Your task to perform on an android device: What's on my calendar today? Image 0: 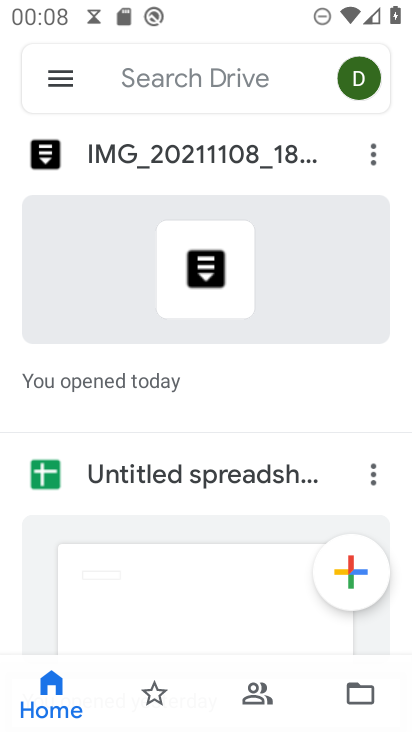
Step 0: press home button
Your task to perform on an android device: What's on my calendar today? Image 1: 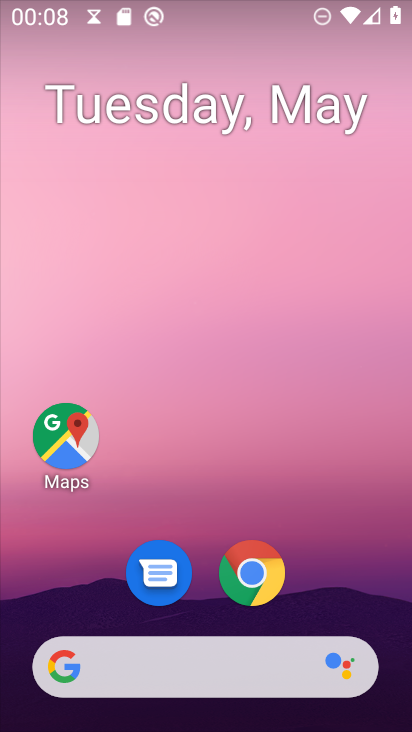
Step 1: drag from (328, 571) to (232, 46)
Your task to perform on an android device: What's on my calendar today? Image 2: 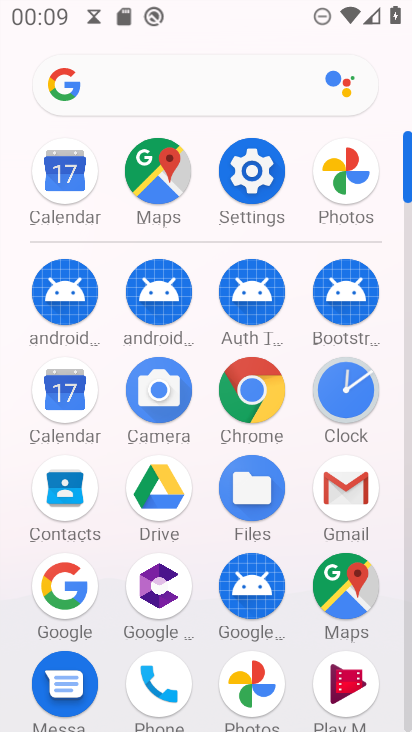
Step 2: click (73, 390)
Your task to perform on an android device: What's on my calendar today? Image 3: 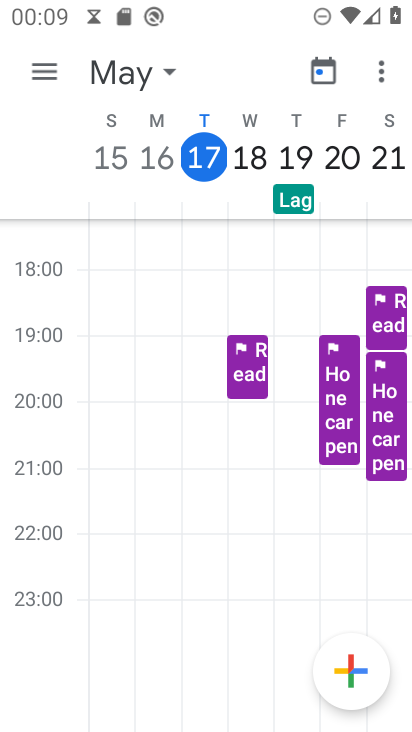
Step 3: task complete